Your task to perform on an android device: Search for pizza restaurants on Maps Image 0: 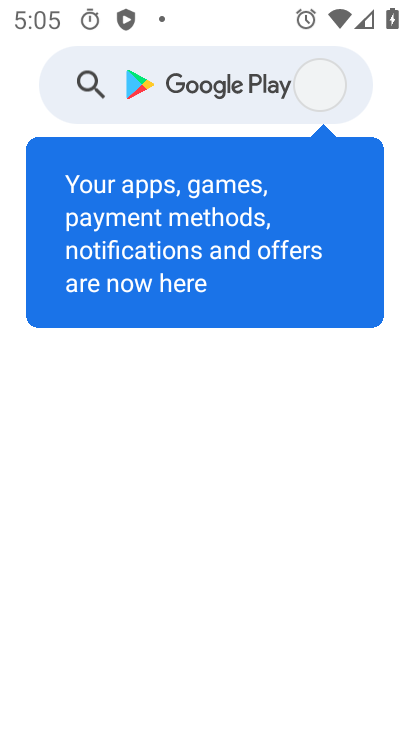
Step 0: press home button
Your task to perform on an android device: Search for pizza restaurants on Maps Image 1: 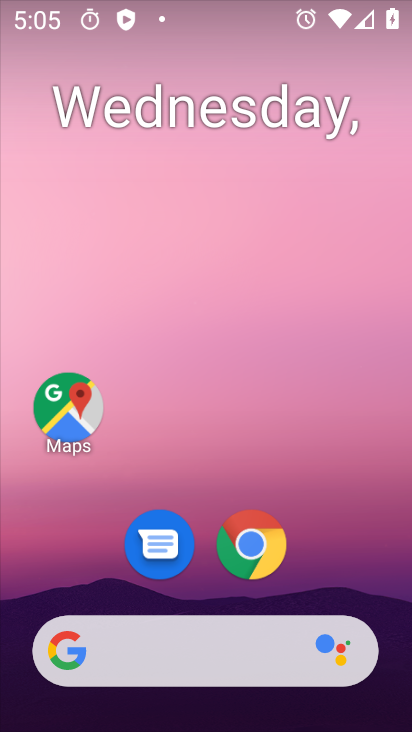
Step 1: click (85, 409)
Your task to perform on an android device: Search for pizza restaurants on Maps Image 2: 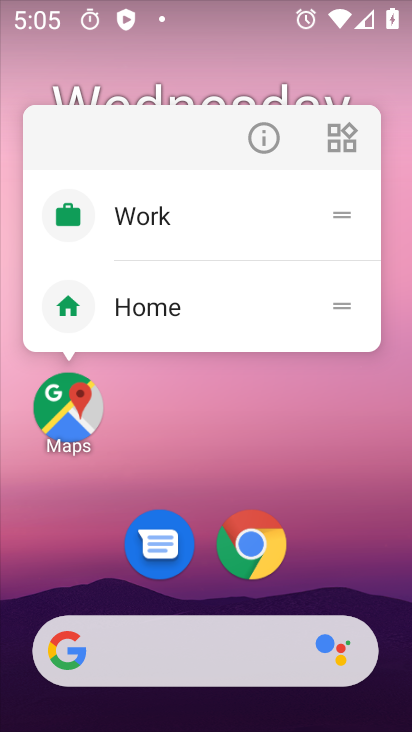
Step 2: click (85, 409)
Your task to perform on an android device: Search for pizza restaurants on Maps Image 3: 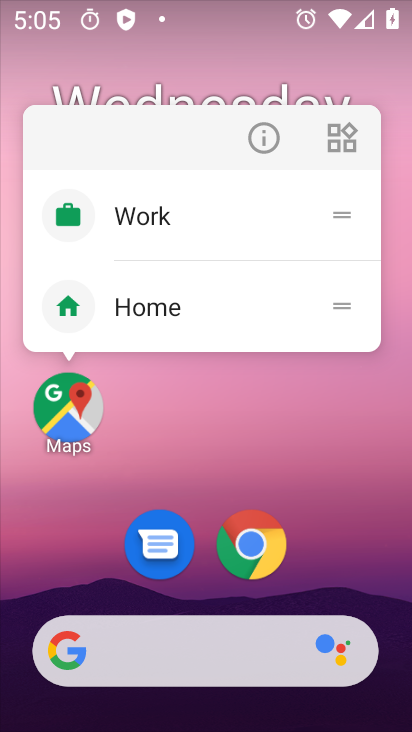
Step 3: click (74, 424)
Your task to perform on an android device: Search for pizza restaurants on Maps Image 4: 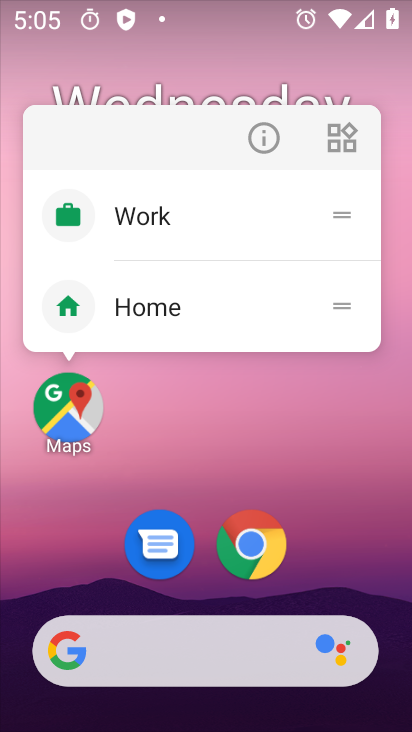
Step 4: click (62, 402)
Your task to perform on an android device: Search for pizza restaurants on Maps Image 5: 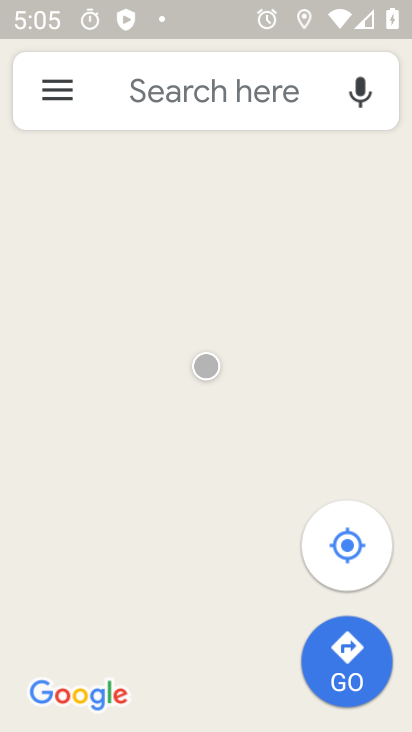
Step 5: click (157, 89)
Your task to perform on an android device: Search for pizza restaurants on Maps Image 6: 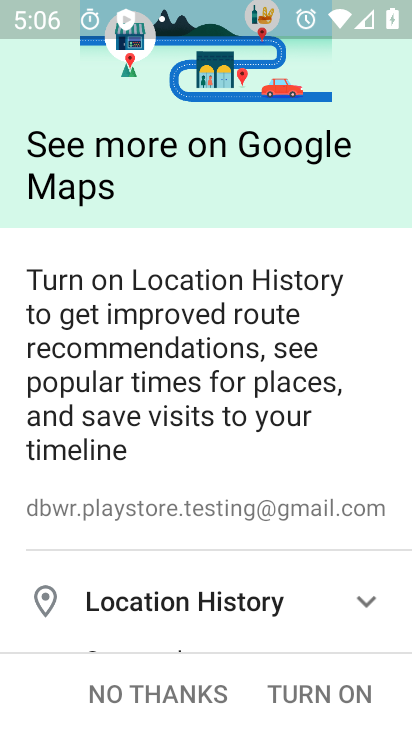
Step 6: click (341, 691)
Your task to perform on an android device: Search for pizza restaurants on Maps Image 7: 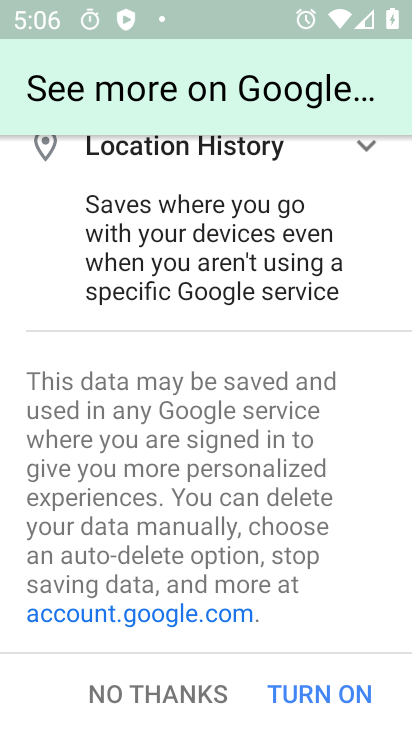
Step 7: click (341, 691)
Your task to perform on an android device: Search for pizza restaurants on Maps Image 8: 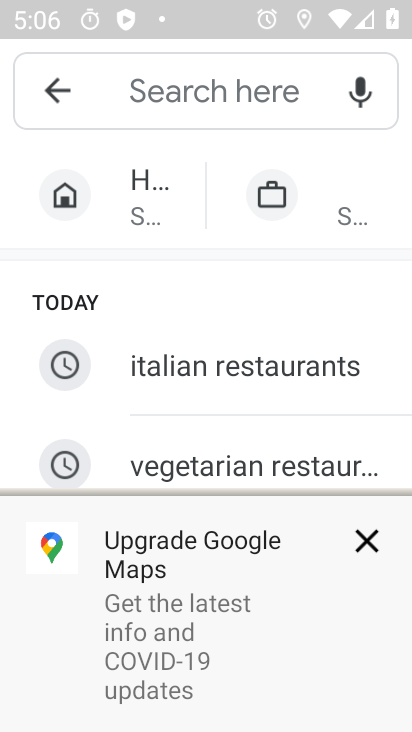
Step 8: click (183, 100)
Your task to perform on an android device: Search for pizza restaurants on Maps Image 9: 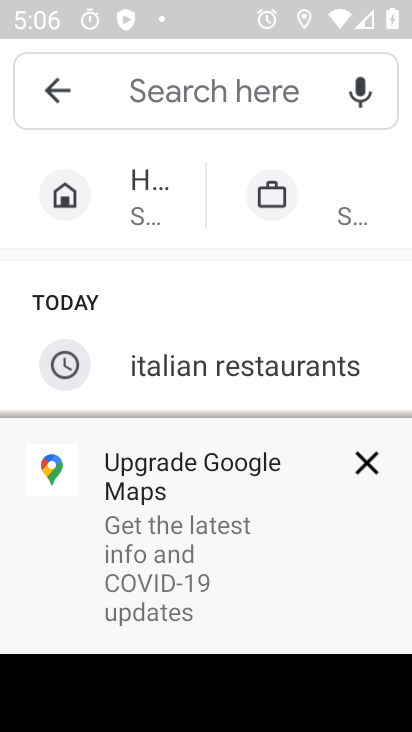
Step 9: drag from (213, 382) to (210, 146)
Your task to perform on an android device: Search for pizza restaurants on Maps Image 10: 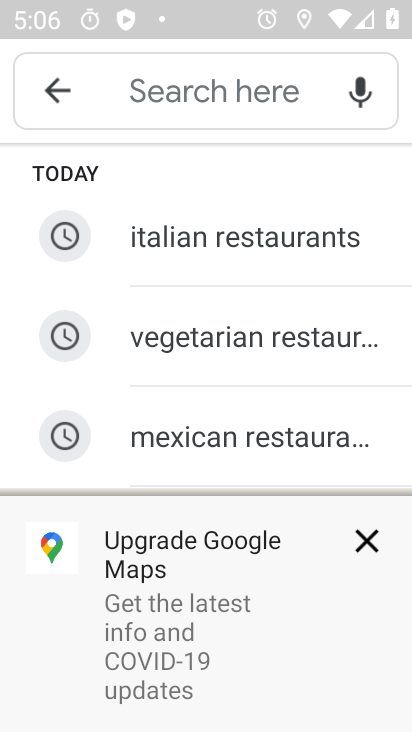
Step 10: drag from (238, 451) to (217, 172)
Your task to perform on an android device: Search for pizza restaurants on Maps Image 11: 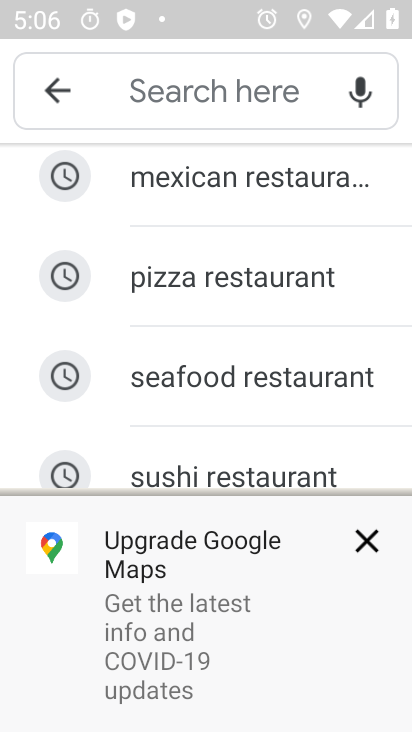
Step 11: click (238, 294)
Your task to perform on an android device: Search for pizza restaurants on Maps Image 12: 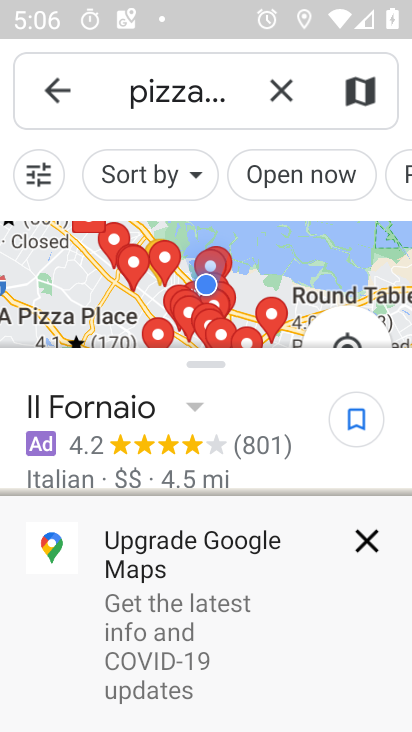
Step 12: click (365, 540)
Your task to perform on an android device: Search for pizza restaurants on Maps Image 13: 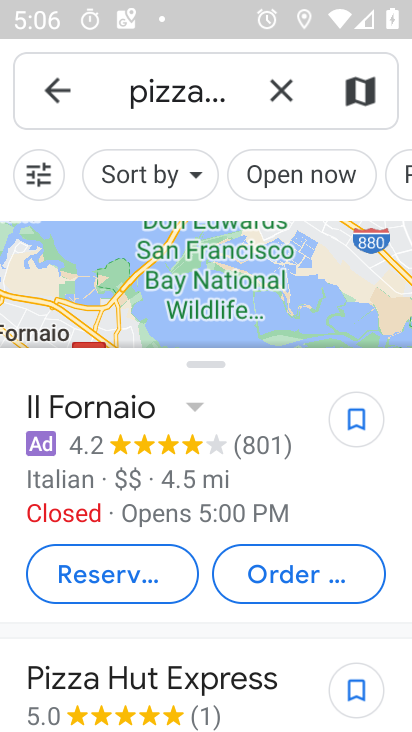
Step 13: task complete